Your task to perform on an android device: turn on translation in the chrome app Image 0: 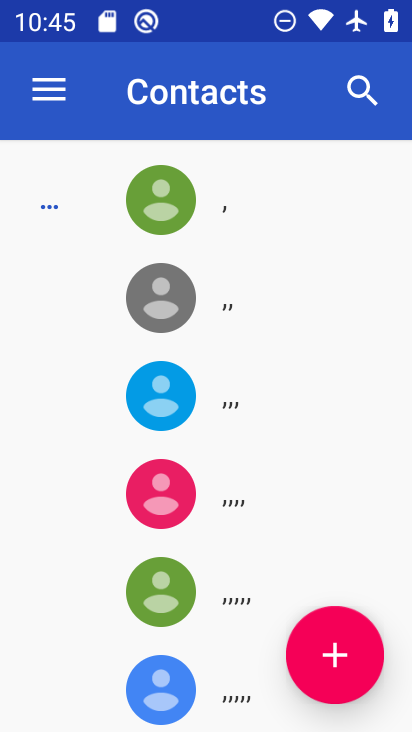
Step 0: press home button
Your task to perform on an android device: turn on translation in the chrome app Image 1: 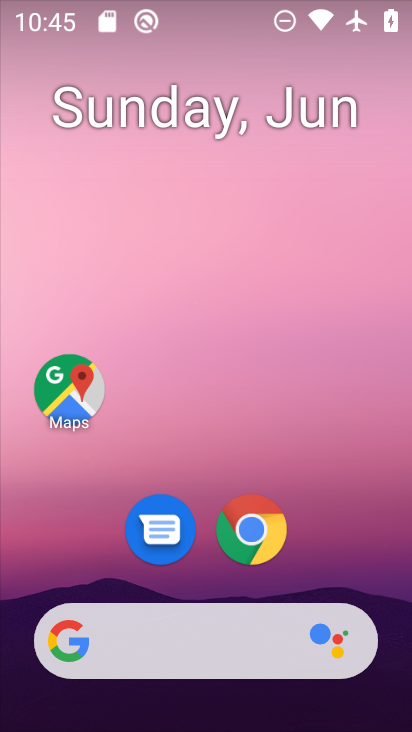
Step 1: click (254, 549)
Your task to perform on an android device: turn on translation in the chrome app Image 2: 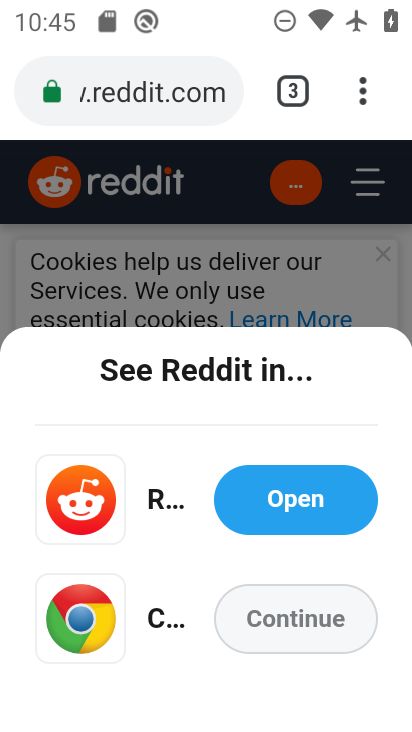
Step 2: click (361, 101)
Your task to perform on an android device: turn on translation in the chrome app Image 3: 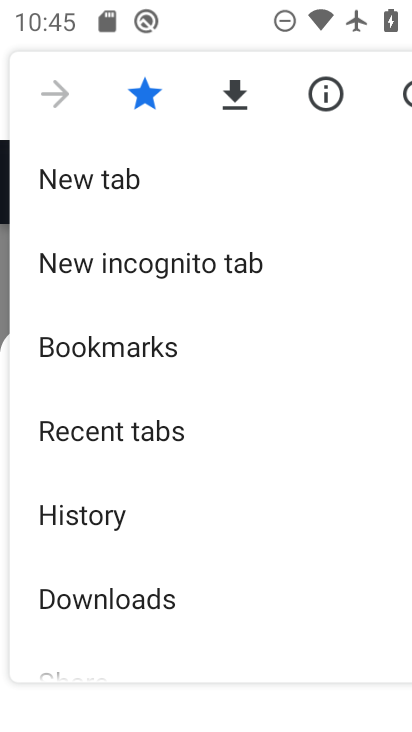
Step 3: drag from (232, 592) to (253, 160)
Your task to perform on an android device: turn on translation in the chrome app Image 4: 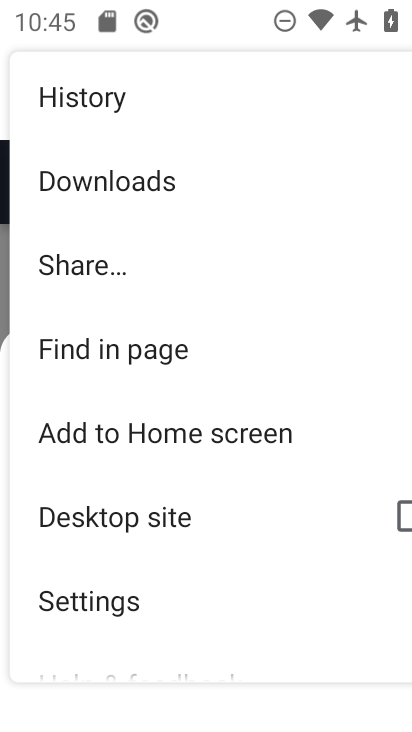
Step 4: click (117, 599)
Your task to perform on an android device: turn on translation in the chrome app Image 5: 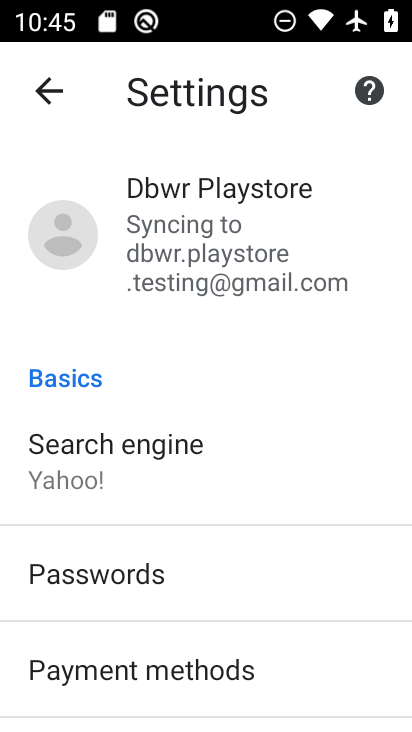
Step 5: drag from (272, 643) to (242, 139)
Your task to perform on an android device: turn on translation in the chrome app Image 6: 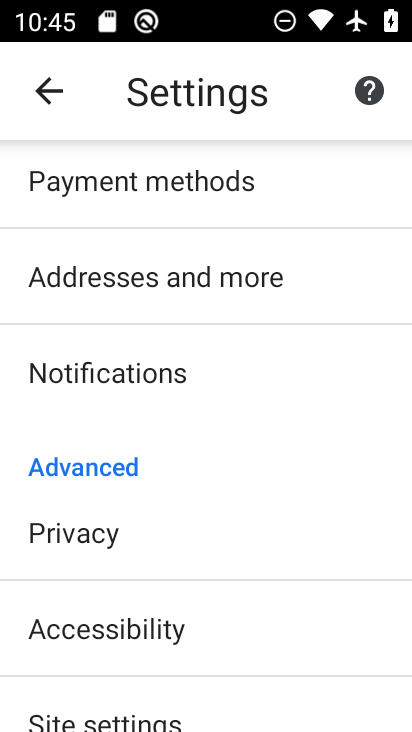
Step 6: drag from (236, 635) to (292, 274)
Your task to perform on an android device: turn on translation in the chrome app Image 7: 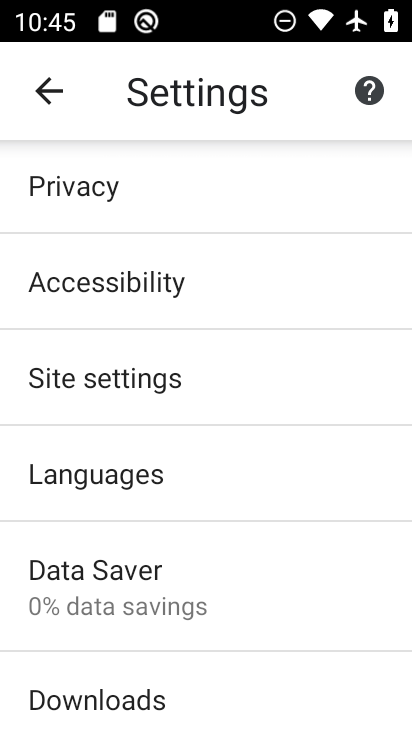
Step 7: click (82, 479)
Your task to perform on an android device: turn on translation in the chrome app Image 8: 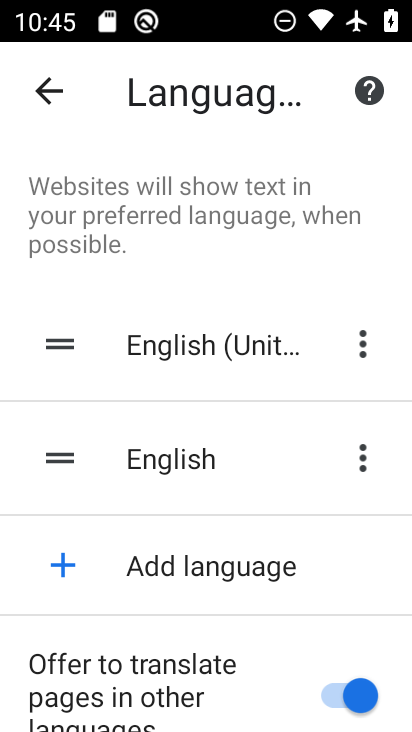
Step 8: task complete